Your task to perform on an android device: Open ESPN.com Image 0: 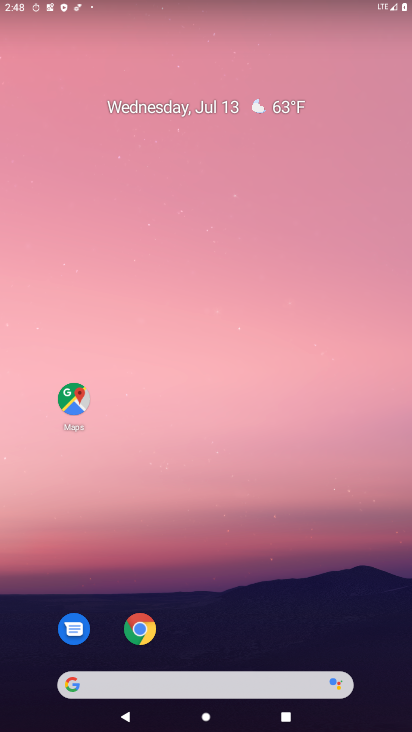
Step 0: drag from (166, 624) to (196, 60)
Your task to perform on an android device: Open ESPN.com Image 1: 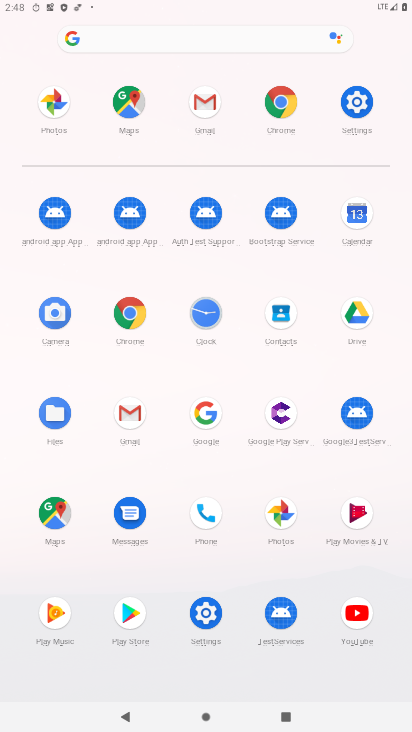
Step 1: click (283, 101)
Your task to perform on an android device: Open ESPN.com Image 2: 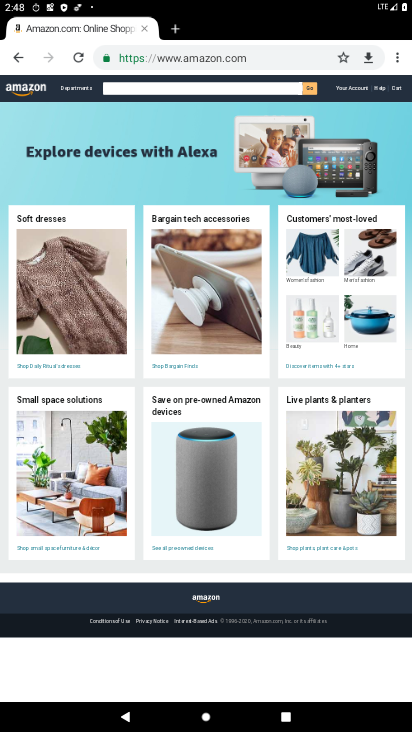
Step 2: click (173, 29)
Your task to perform on an android device: Open ESPN.com Image 3: 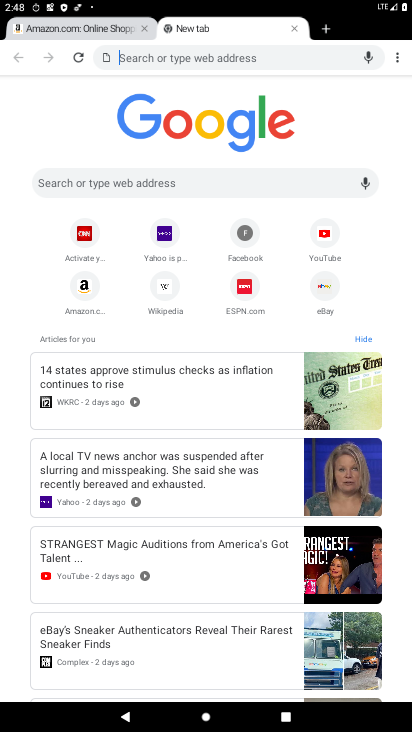
Step 3: click (244, 288)
Your task to perform on an android device: Open ESPN.com Image 4: 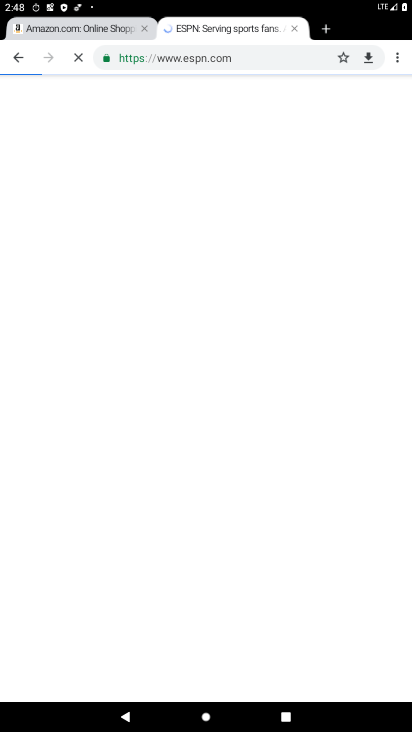
Step 4: task complete